Your task to perform on an android device: change alarm snooze length Image 0: 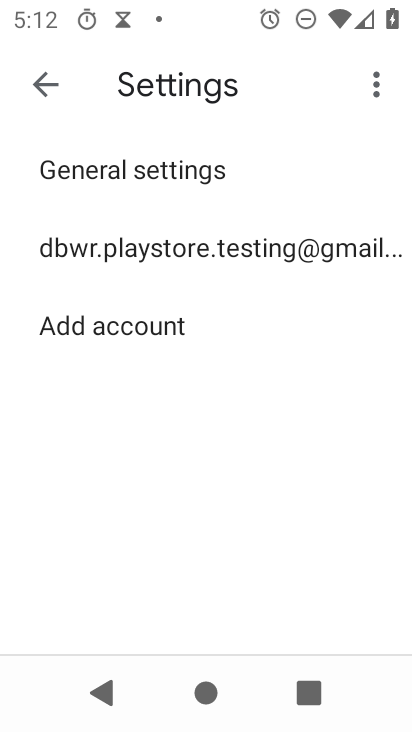
Step 0: press back button
Your task to perform on an android device: change alarm snooze length Image 1: 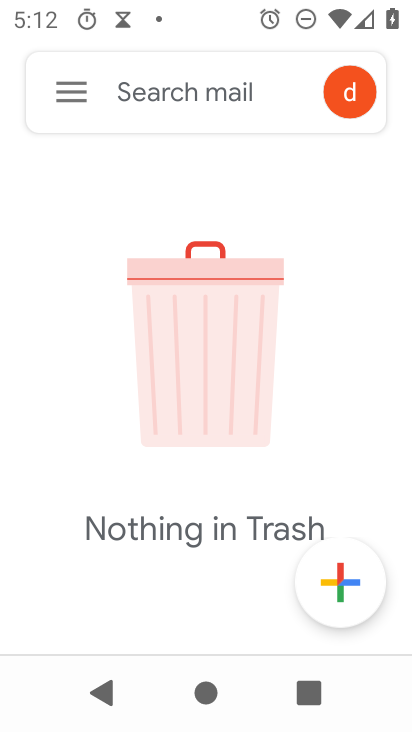
Step 1: press back button
Your task to perform on an android device: change alarm snooze length Image 2: 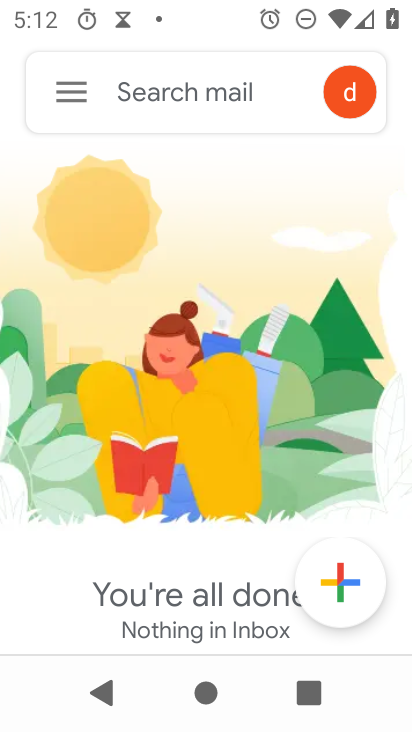
Step 2: press back button
Your task to perform on an android device: change alarm snooze length Image 3: 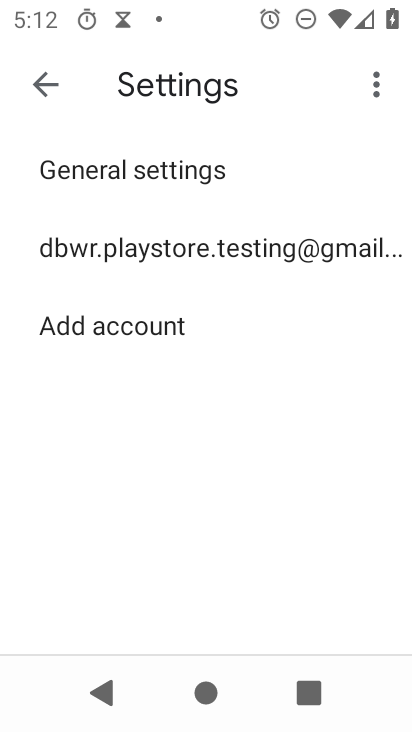
Step 3: press back button
Your task to perform on an android device: change alarm snooze length Image 4: 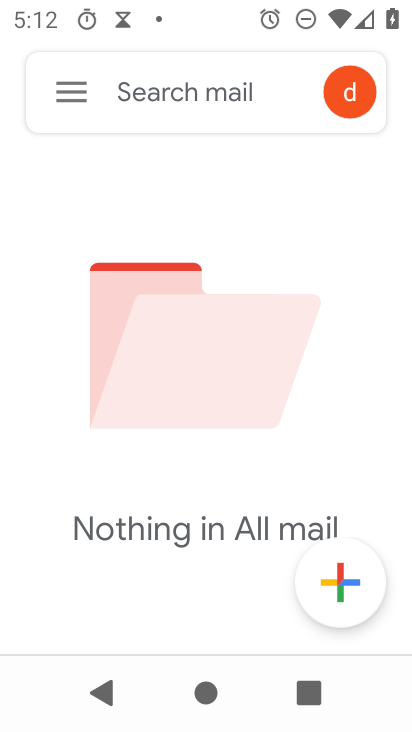
Step 4: press back button
Your task to perform on an android device: change alarm snooze length Image 5: 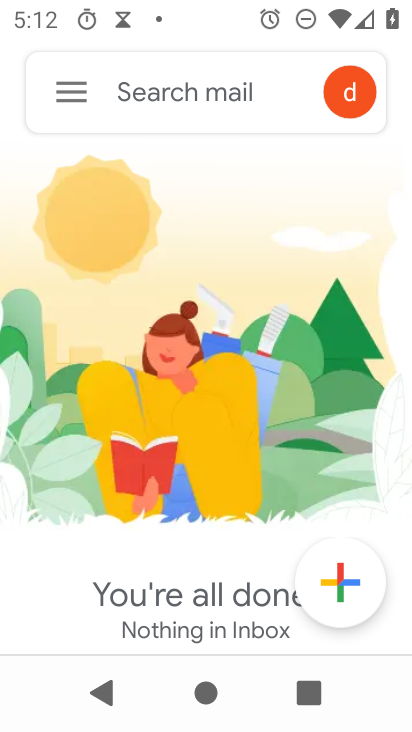
Step 5: press back button
Your task to perform on an android device: change alarm snooze length Image 6: 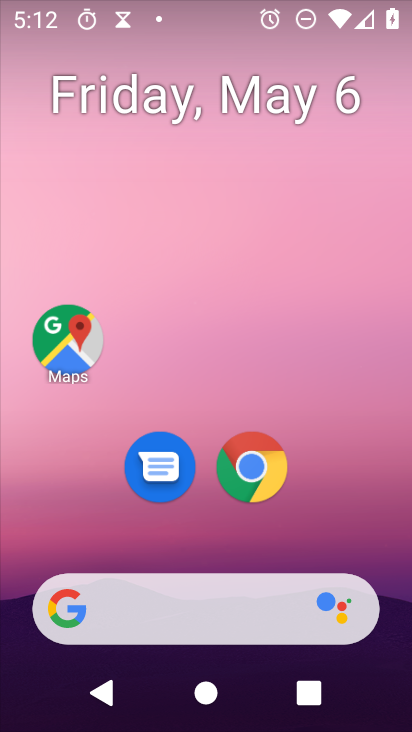
Step 6: drag from (285, 531) to (281, 139)
Your task to perform on an android device: change alarm snooze length Image 7: 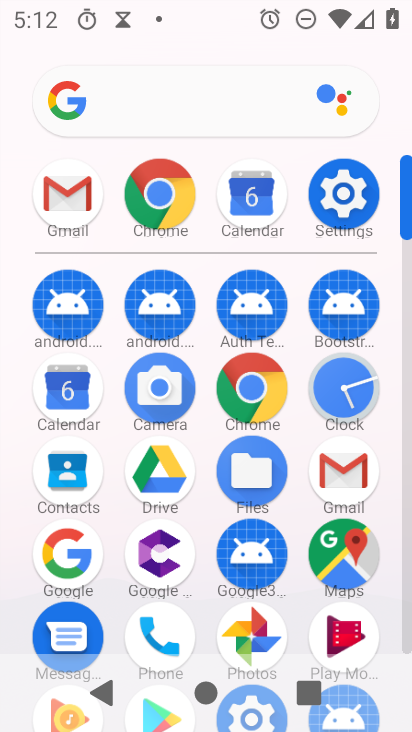
Step 7: click (346, 395)
Your task to perform on an android device: change alarm snooze length Image 8: 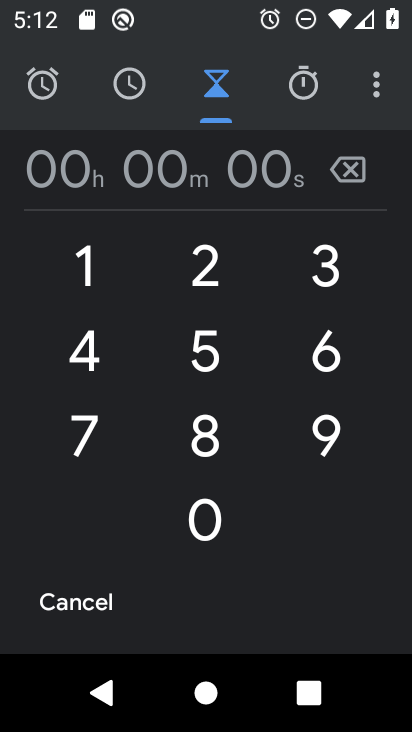
Step 8: click (47, 82)
Your task to perform on an android device: change alarm snooze length Image 9: 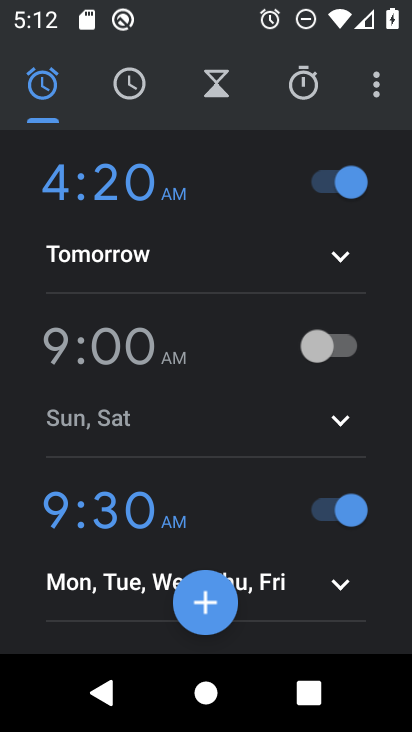
Step 9: click (376, 91)
Your task to perform on an android device: change alarm snooze length Image 10: 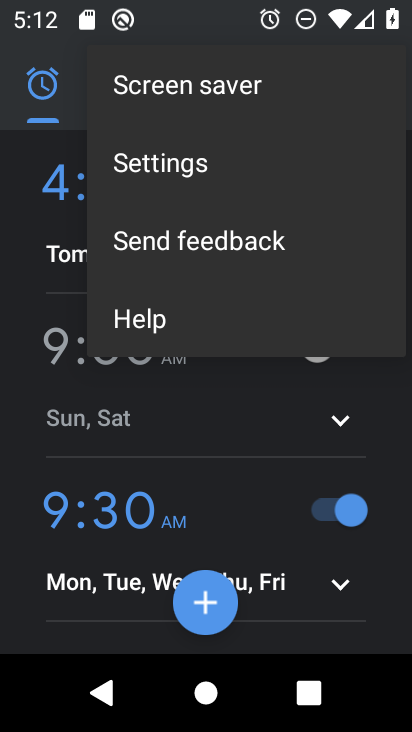
Step 10: click (183, 177)
Your task to perform on an android device: change alarm snooze length Image 11: 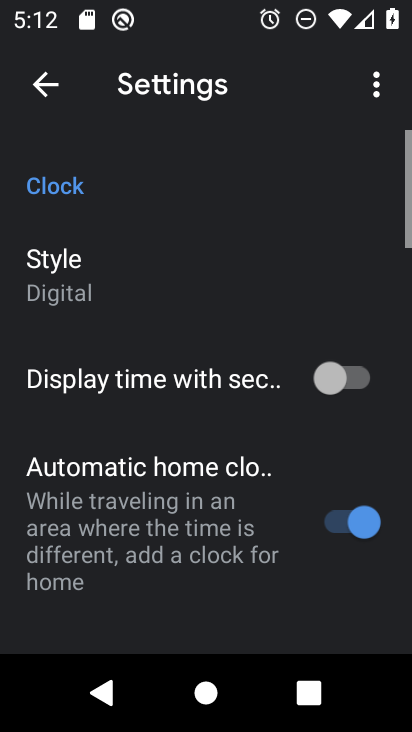
Step 11: drag from (238, 513) to (227, 149)
Your task to perform on an android device: change alarm snooze length Image 12: 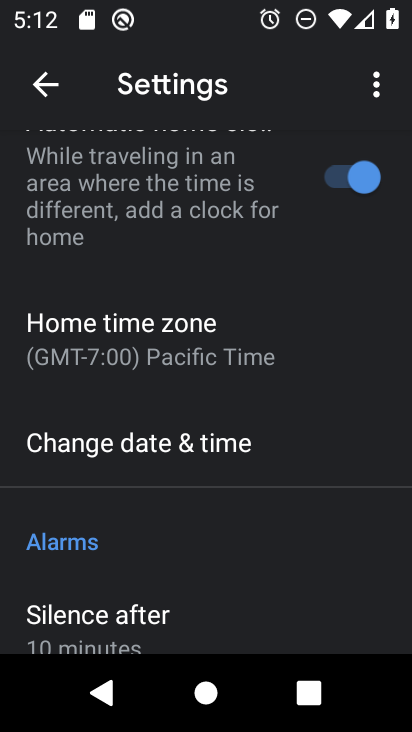
Step 12: drag from (193, 503) to (215, 281)
Your task to perform on an android device: change alarm snooze length Image 13: 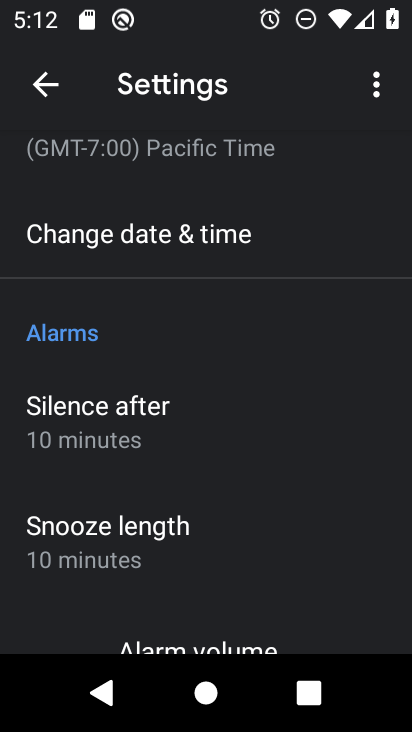
Step 13: click (151, 538)
Your task to perform on an android device: change alarm snooze length Image 14: 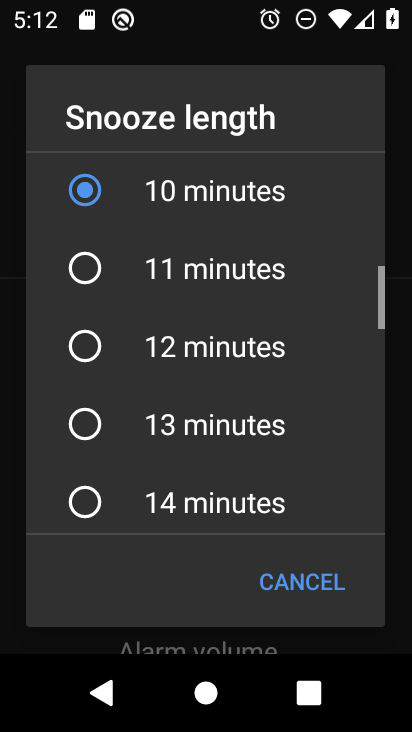
Step 14: click (116, 513)
Your task to perform on an android device: change alarm snooze length Image 15: 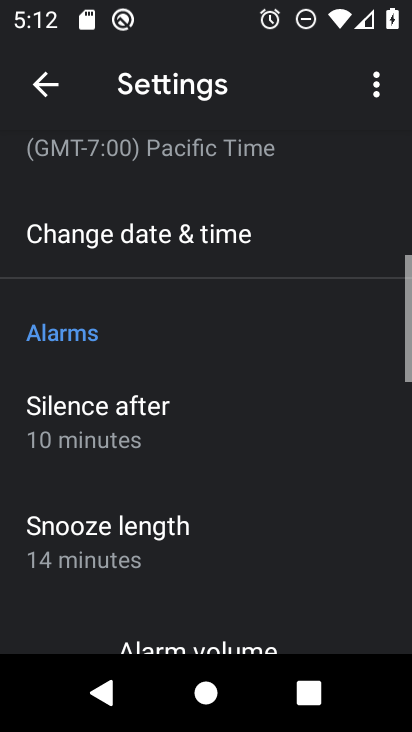
Step 15: task complete